Your task to perform on an android device: turn on improve location accuracy Image 0: 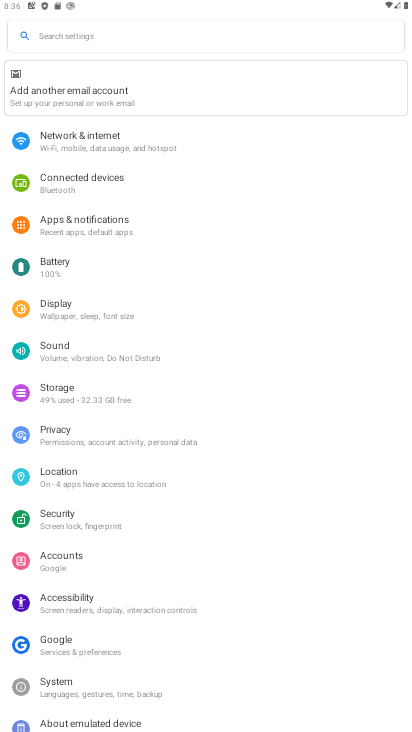
Step 0: click (72, 470)
Your task to perform on an android device: turn on improve location accuracy Image 1: 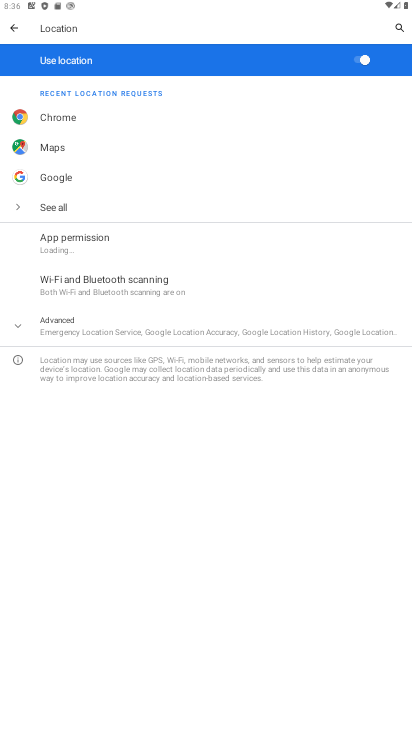
Step 1: click (85, 334)
Your task to perform on an android device: turn on improve location accuracy Image 2: 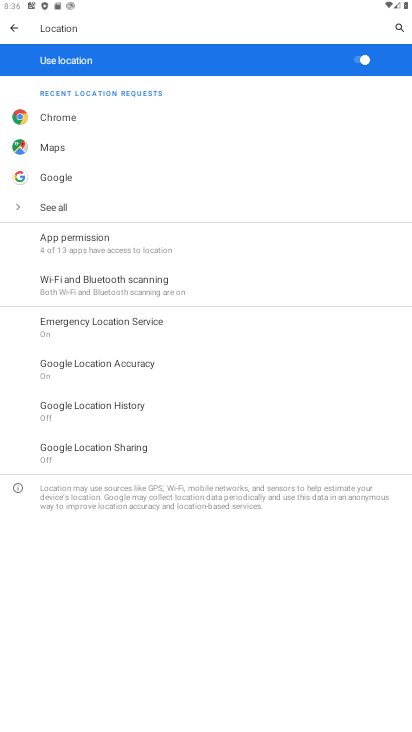
Step 2: click (114, 362)
Your task to perform on an android device: turn on improve location accuracy Image 3: 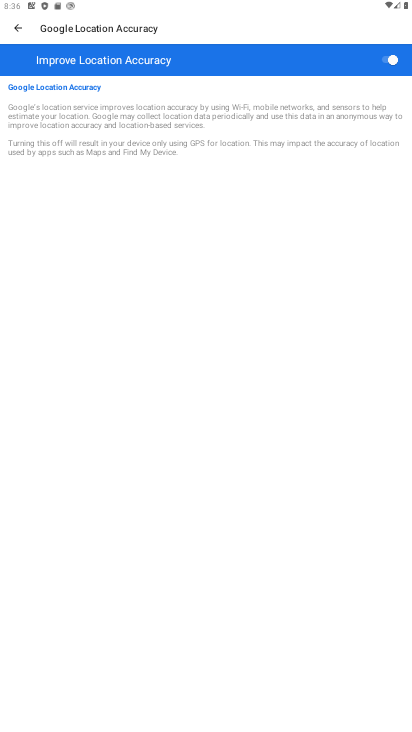
Step 3: task complete